Your task to perform on an android device: snooze an email in the gmail app Image 0: 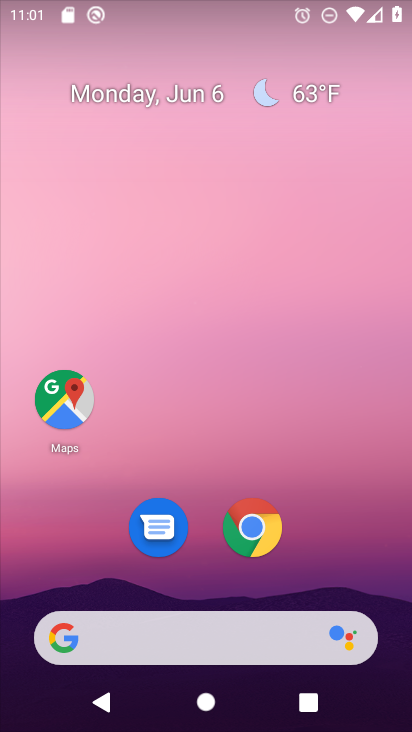
Step 0: drag from (342, 560) to (396, 368)
Your task to perform on an android device: snooze an email in the gmail app Image 1: 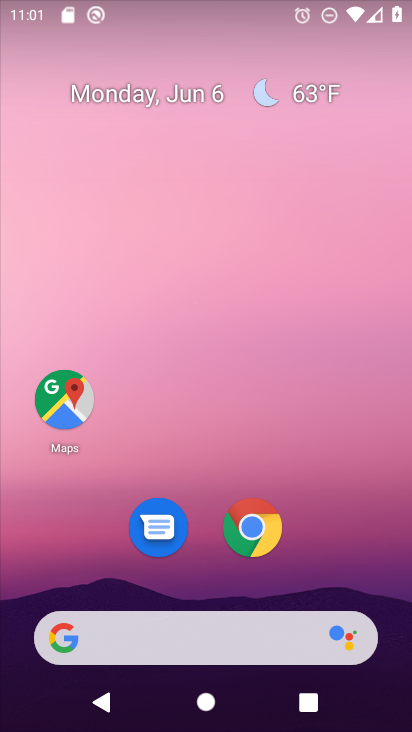
Step 1: drag from (361, 543) to (301, 133)
Your task to perform on an android device: snooze an email in the gmail app Image 2: 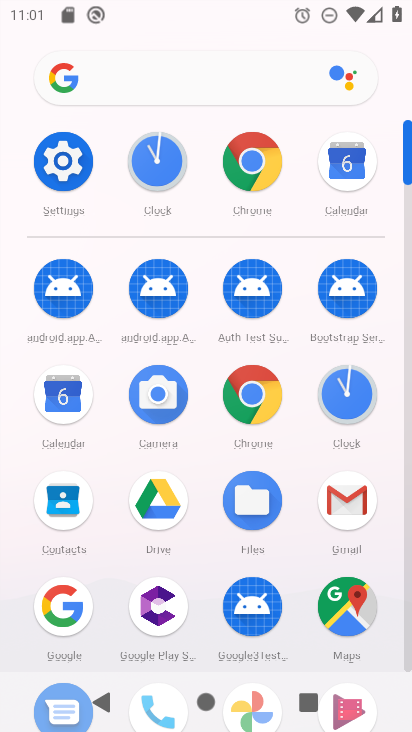
Step 2: click (338, 506)
Your task to perform on an android device: snooze an email in the gmail app Image 3: 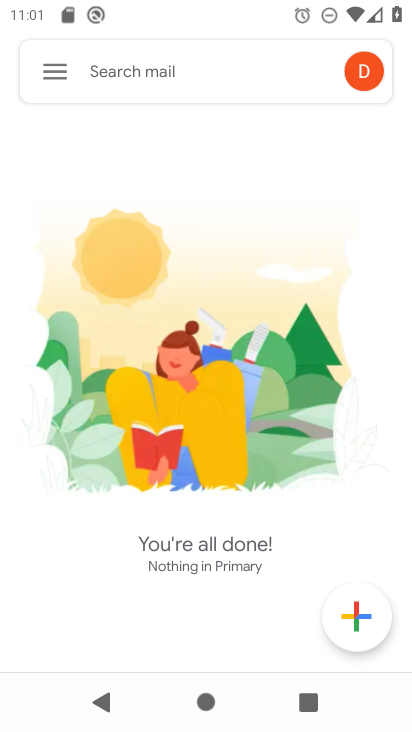
Step 3: click (50, 77)
Your task to perform on an android device: snooze an email in the gmail app Image 4: 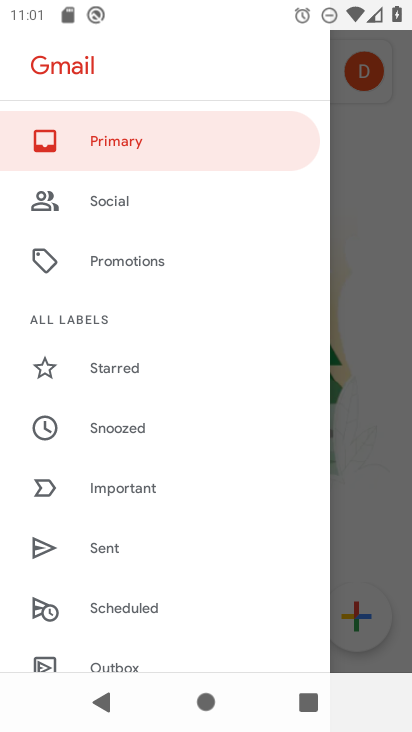
Step 4: click (115, 436)
Your task to perform on an android device: snooze an email in the gmail app Image 5: 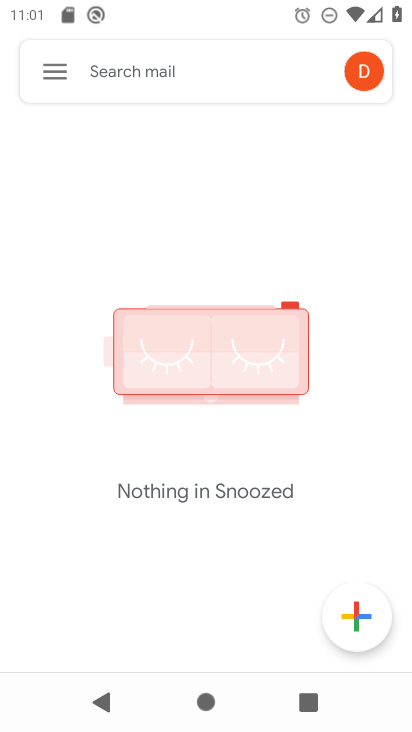
Step 5: task complete